Your task to perform on an android device: Search for pizza restaurants on Maps Image 0: 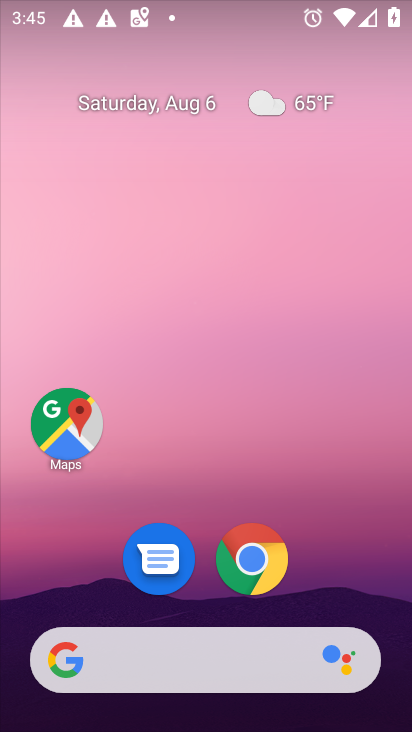
Step 0: drag from (339, 598) to (268, 17)
Your task to perform on an android device: Search for pizza restaurants on Maps Image 1: 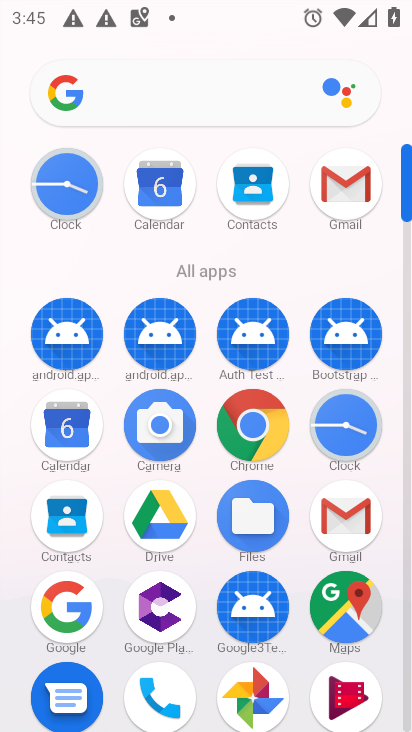
Step 1: click (346, 609)
Your task to perform on an android device: Search for pizza restaurants on Maps Image 2: 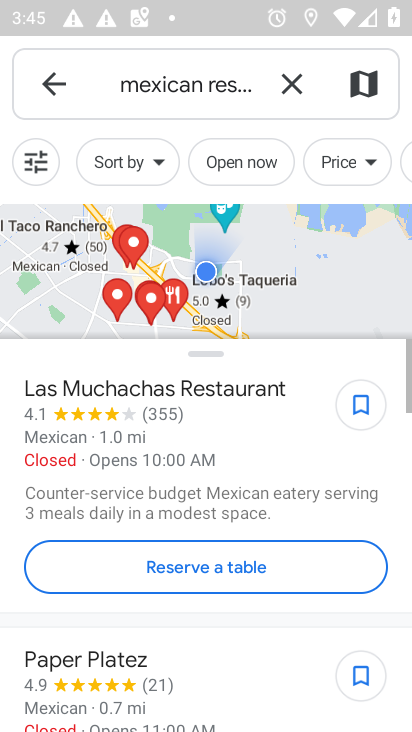
Step 2: click (289, 84)
Your task to perform on an android device: Search for pizza restaurants on Maps Image 3: 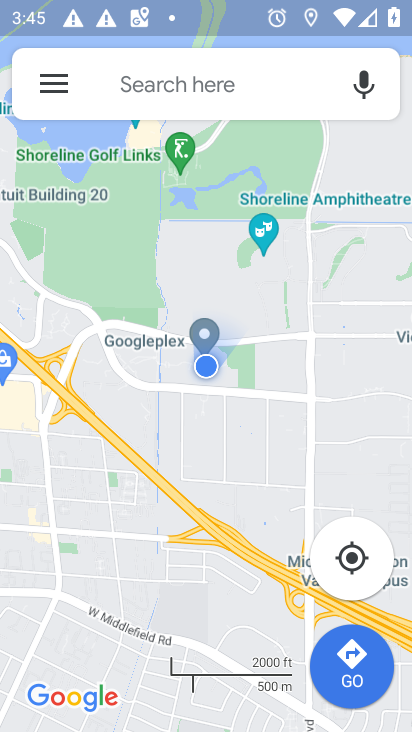
Step 3: click (174, 83)
Your task to perform on an android device: Search for pizza restaurants on Maps Image 4: 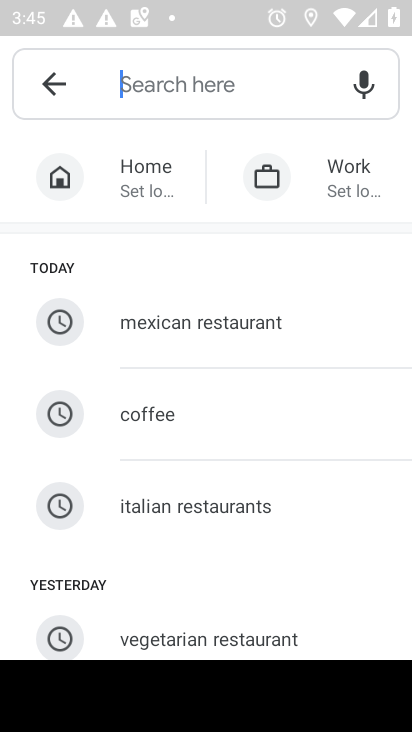
Step 4: drag from (166, 546) to (175, 118)
Your task to perform on an android device: Search for pizza restaurants on Maps Image 5: 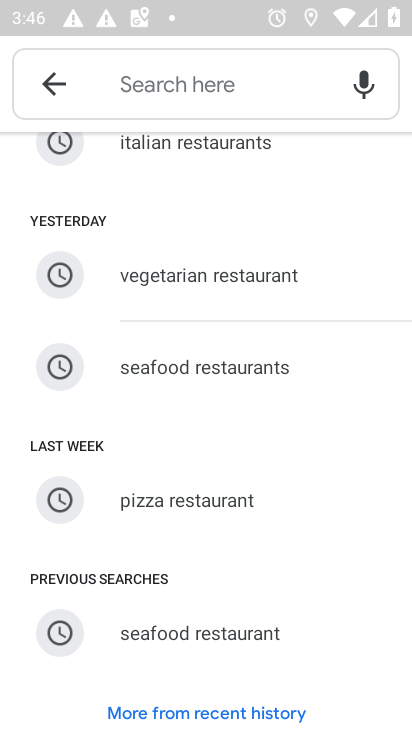
Step 5: click (170, 509)
Your task to perform on an android device: Search for pizza restaurants on Maps Image 6: 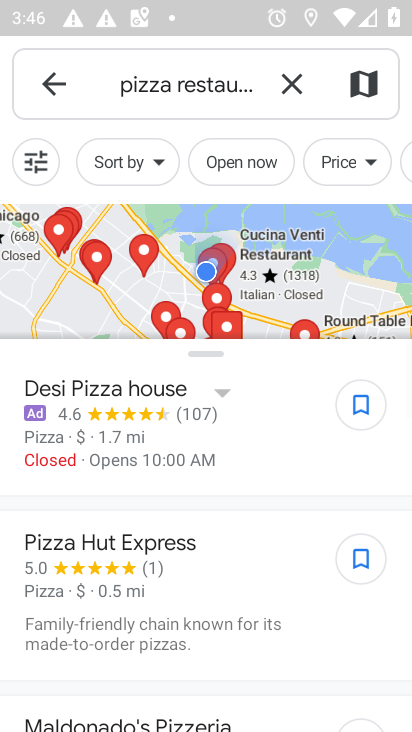
Step 6: task complete